Your task to perform on an android device: Do I have any events tomorrow? Image 0: 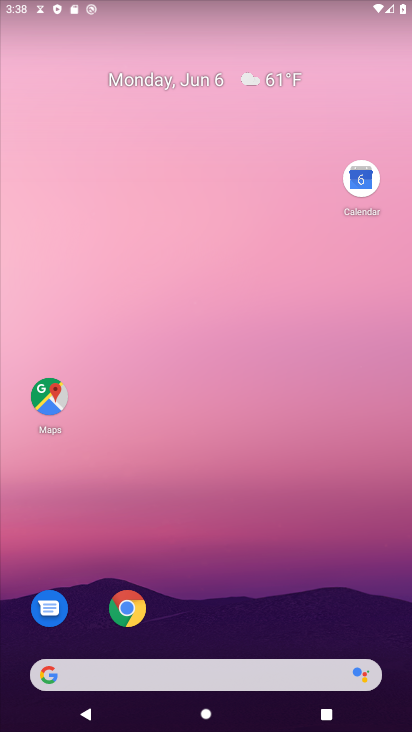
Step 0: drag from (255, 613) to (240, 98)
Your task to perform on an android device: Do I have any events tomorrow? Image 1: 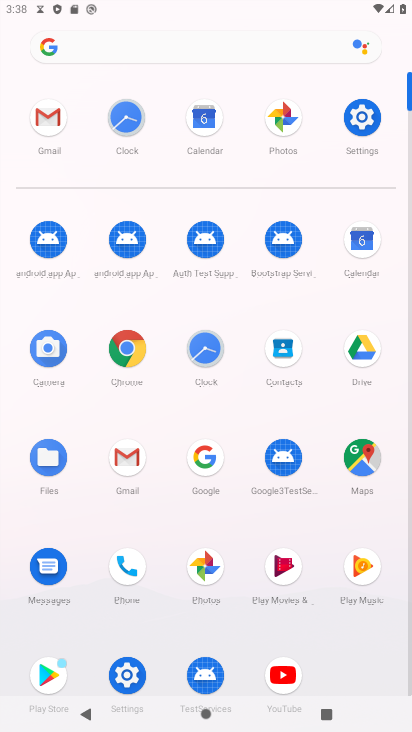
Step 1: click (355, 254)
Your task to perform on an android device: Do I have any events tomorrow? Image 2: 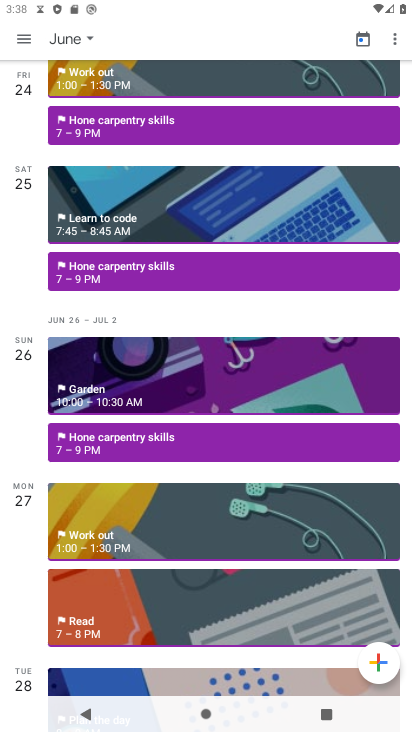
Step 2: click (67, 42)
Your task to perform on an android device: Do I have any events tomorrow? Image 3: 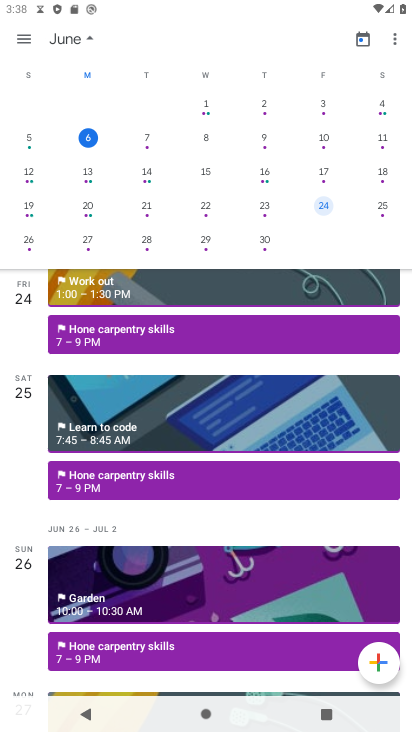
Step 3: click (149, 136)
Your task to perform on an android device: Do I have any events tomorrow? Image 4: 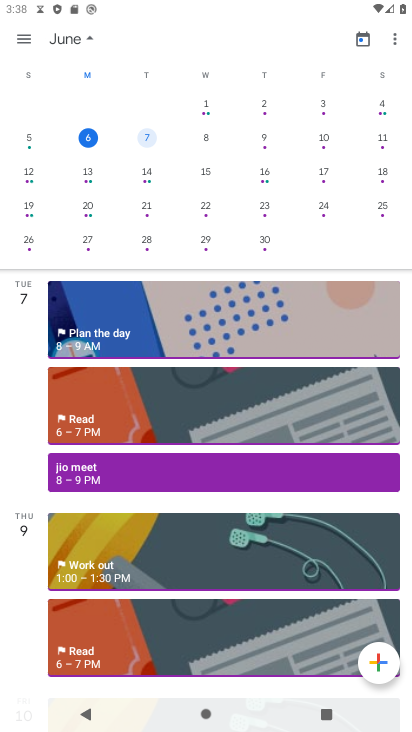
Step 4: task complete